Your task to perform on an android device: toggle translation in the chrome app Image 0: 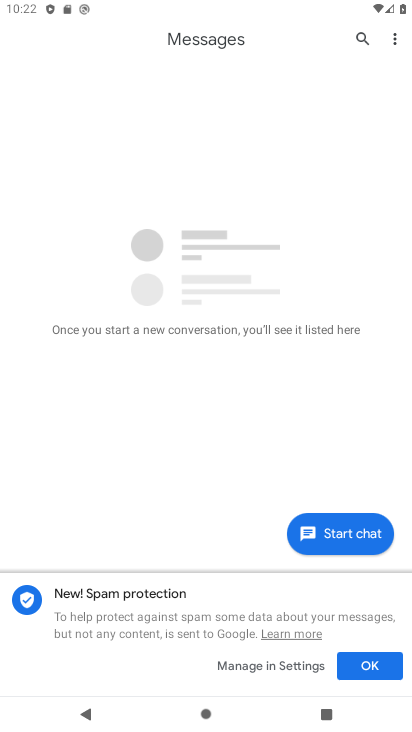
Step 0: press home button
Your task to perform on an android device: toggle translation in the chrome app Image 1: 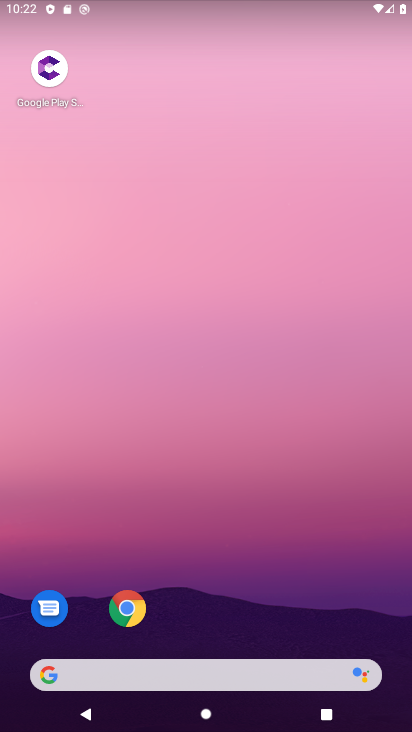
Step 1: click (140, 609)
Your task to perform on an android device: toggle translation in the chrome app Image 2: 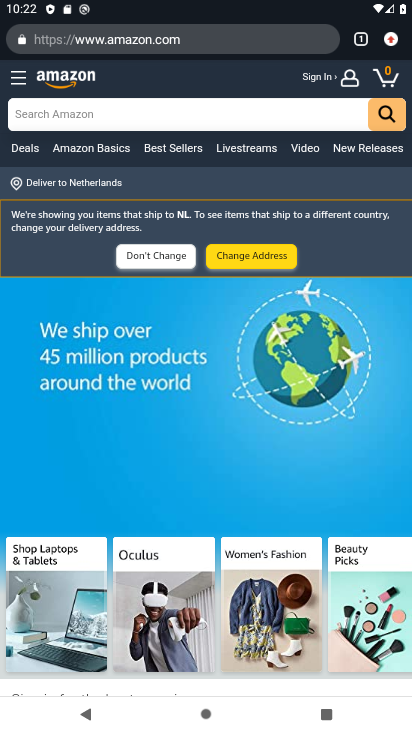
Step 2: click (399, 39)
Your task to perform on an android device: toggle translation in the chrome app Image 3: 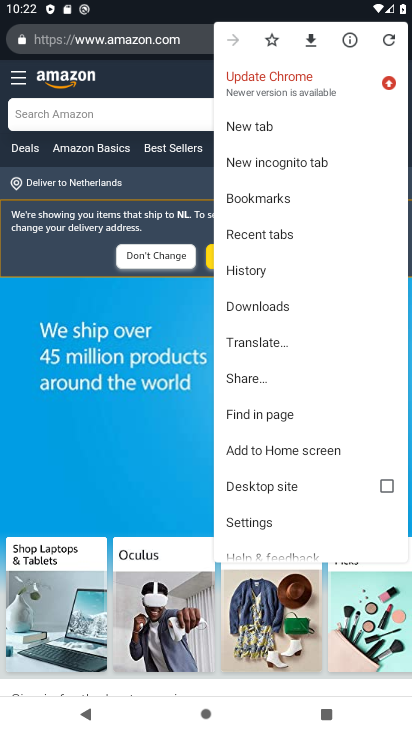
Step 3: click (277, 517)
Your task to perform on an android device: toggle translation in the chrome app Image 4: 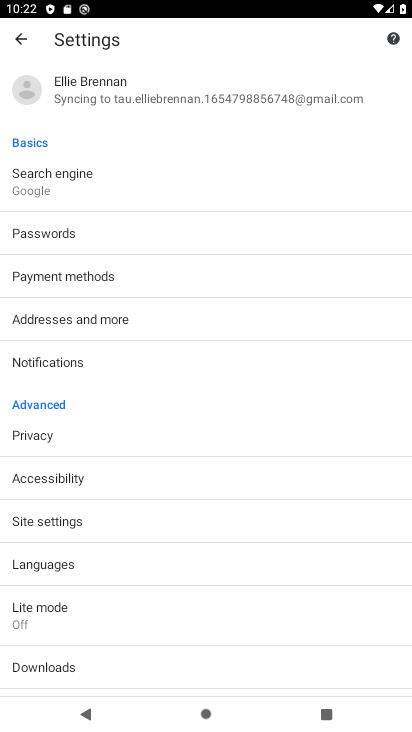
Step 4: click (24, 561)
Your task to perform on an android device: toggle translation in the chrome app Image 5: 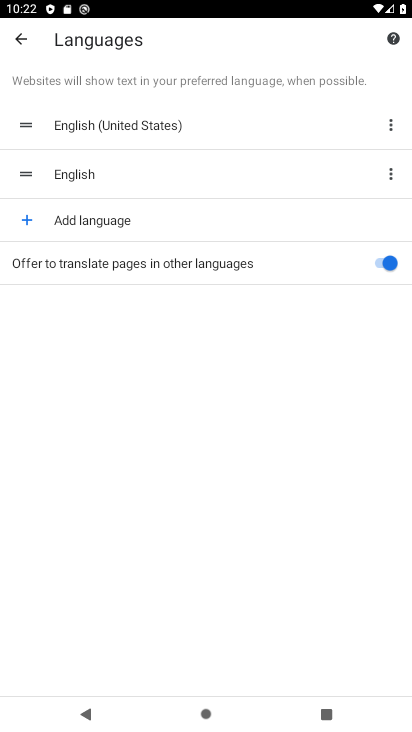
Step 5: click (391, 267)
Your task to perform on an android device: toggle translation in the chrome app Image 6: 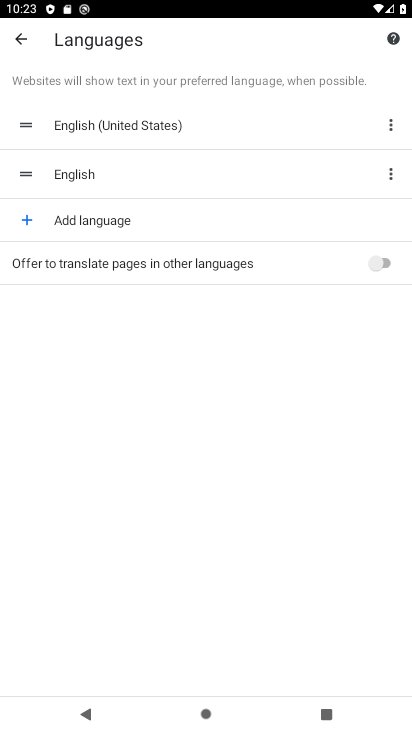
Step 6: task complete